Your task to perform on an android device: change alarm snooze length Image 0: 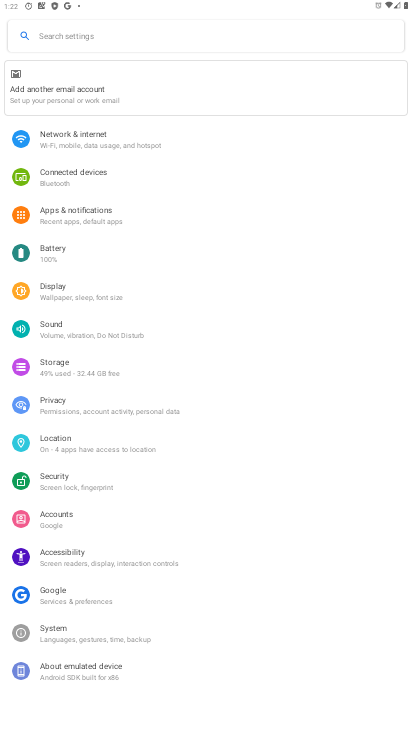
Step 0: press home button
Your task to perform on an android device: change alarm snooze length Image 1: 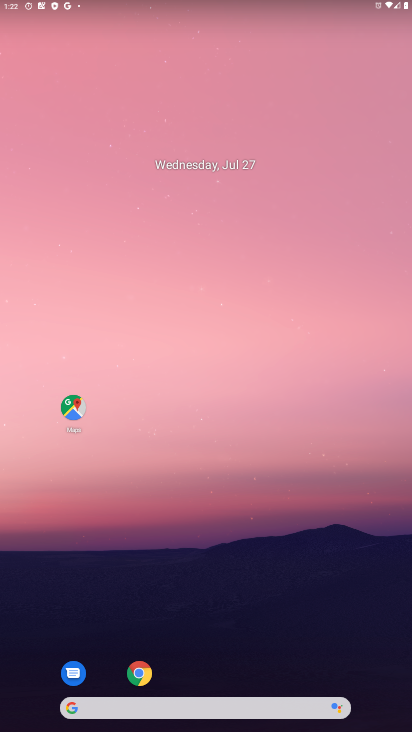
Step 1: drag from (228, 689) to (206, 116)
Your task to perform on an android device: change alarm snooze length Image 2: 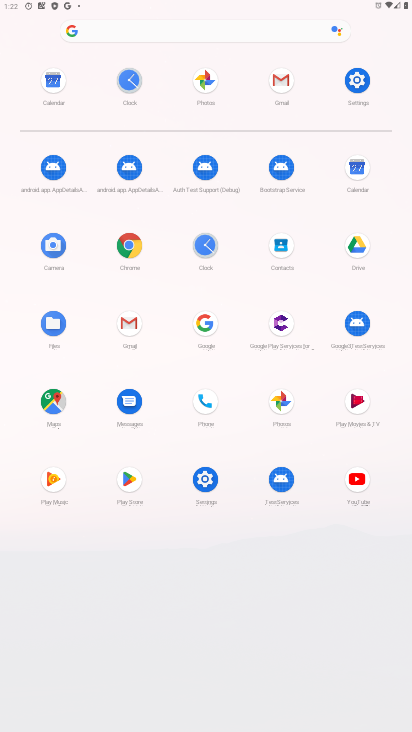
Step 2: click (207, 247)
Your task to perform on an android device: change alarm snooze length Image 3: 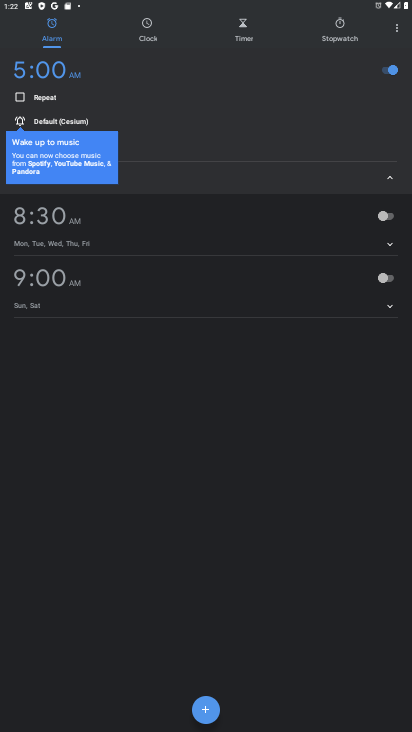
Step 3: click (402, 37)
Your task to perform on an android device: change alarm snooze length Image 4: 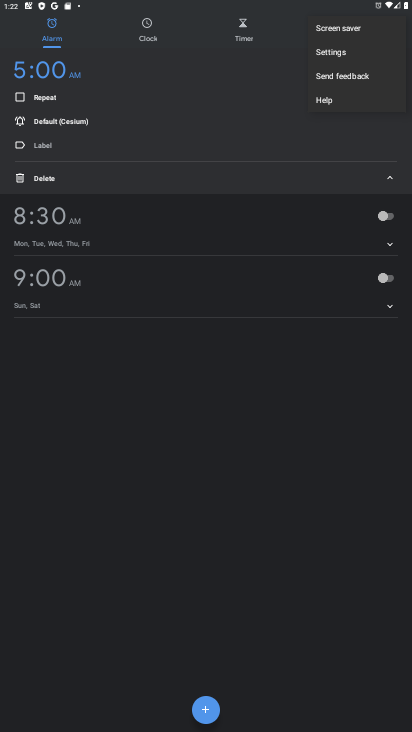
Step 4: click (341, 57)
Your task to perform on an android device: change alarm snooze length Image 5: 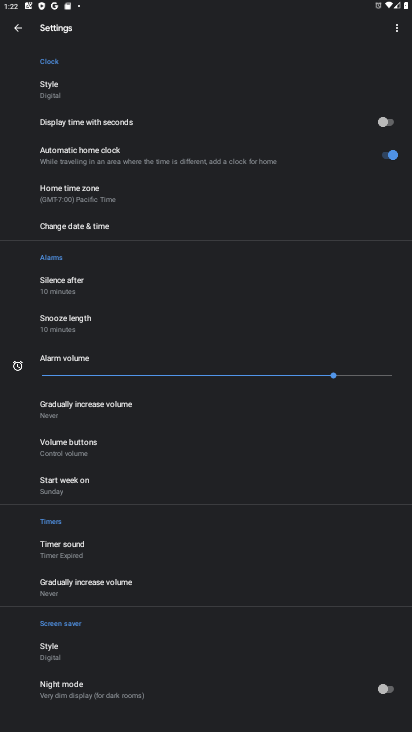
Step 5: click (72, 330)
Your task to perform on an android device: change alarm snooze length Image 6: 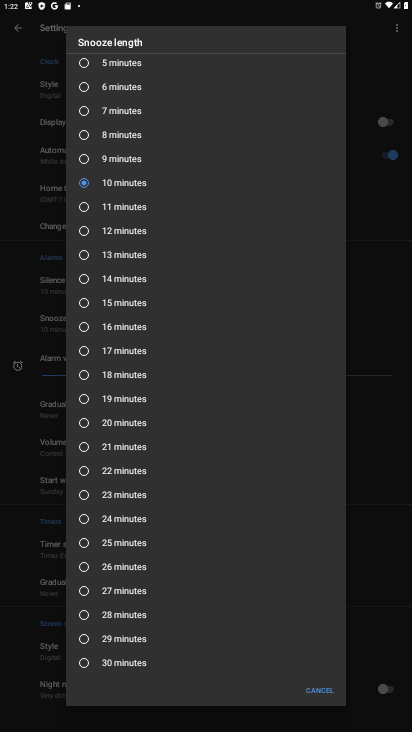
Step 6: click (86, 231)
Your task to perform on an android device: change alarm snooze length Image 7: 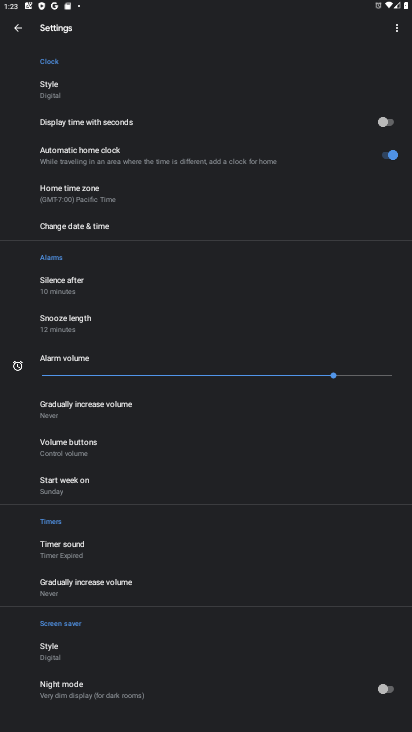
Step 7: task complete